Your task to perform on an android device: change keyboard looks Image 0: 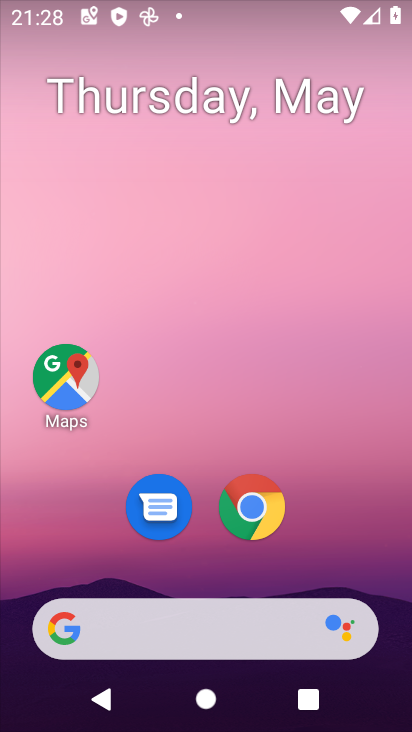
Step 0: drag from (259, 670) to (226, 262)
Your task to perform on an android device: change keyboard looks Image 1: 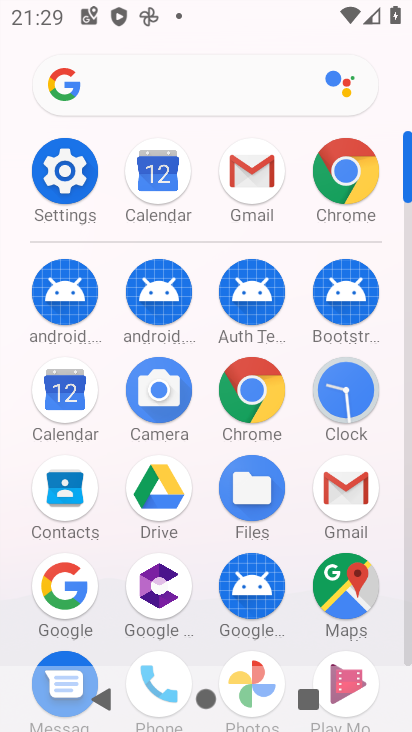
Step 1: click (43, 155)
Your task to perform on an android device: change keyboard looks Image 2: 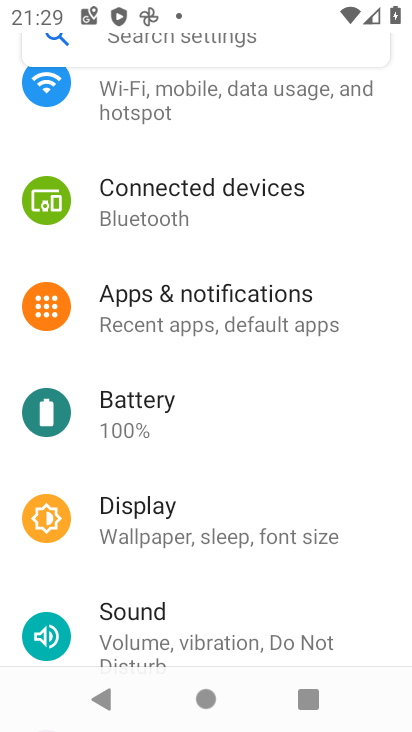
Step 2: click (177, 45)
Your task to perform on an android device: change keyboard looks Image 3: 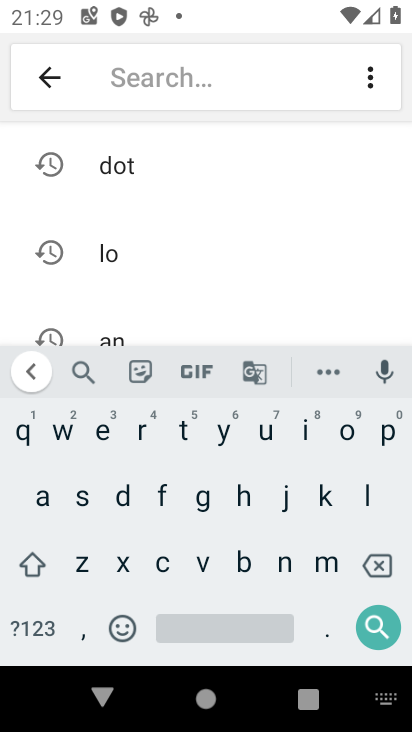
Step 3: click (321, 502)
Your task to perform on an android device: change keyboard looks Image 4: 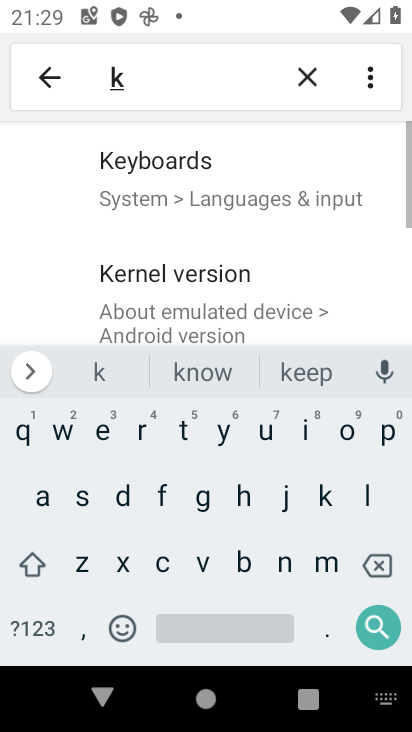
Step 4: click (101, 451)
Your task to perform on an android device: change keyboard looks Image 5: 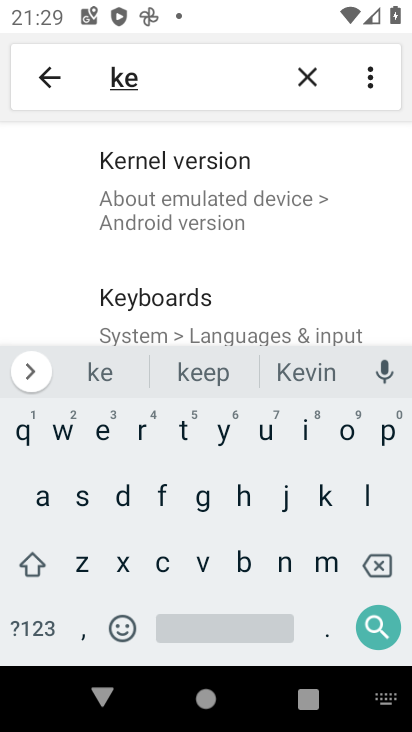
Step 5: click (123, 321)
Your task to perform on an android device: change keyboard looks Image 6: 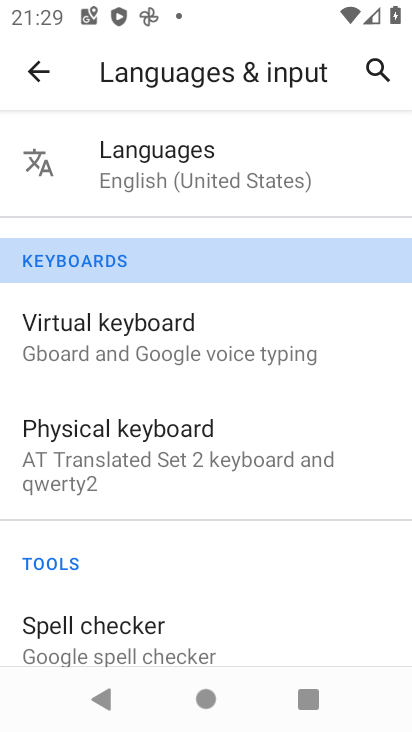
Step 6: click (127, 345)
Your task to perform on an android device: change keyboard looks Image 7: 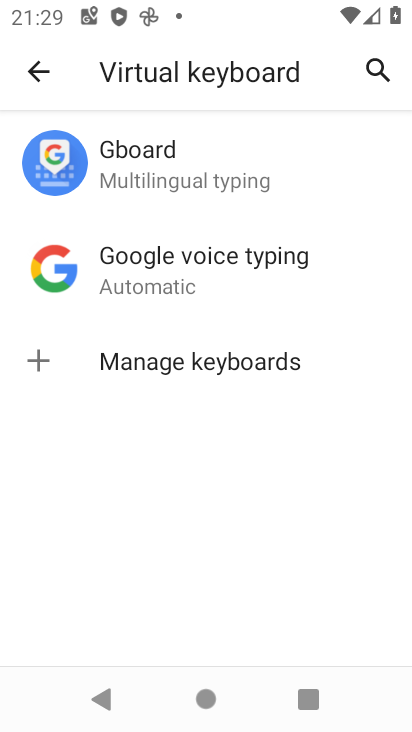
Step 7: task complete